Your task to perform on an android device: turn on priority inbox in the gmail app Image 0: 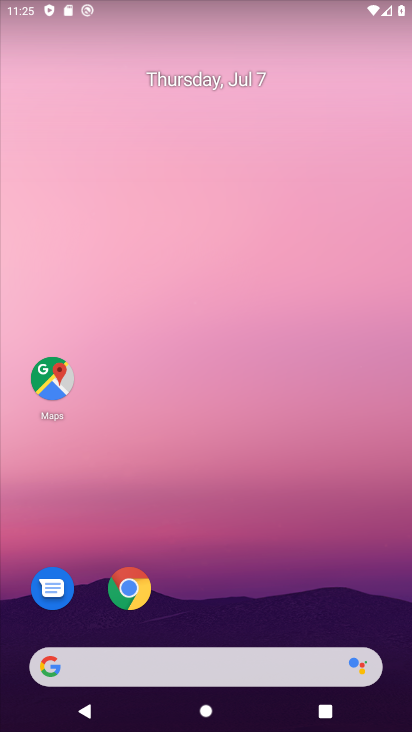
Step 0: drag from (311, 568) to (284, 15)
Your task to perform on an android device: turn on priority inbox in the gmail app Image 1: 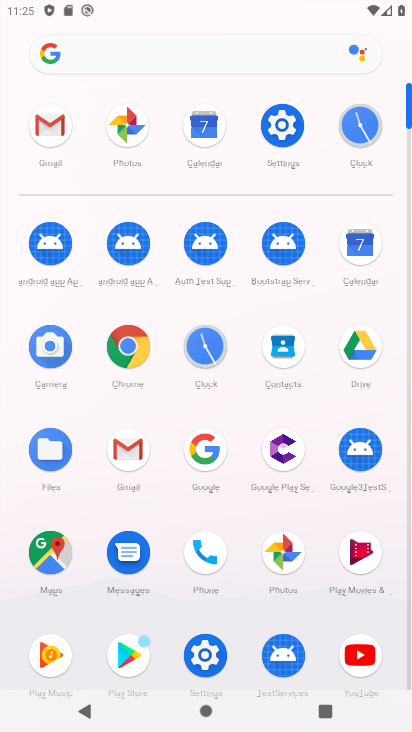
Step 1: click (44, 119)
Your task to perform on an android device: turn on priority inbox in the gmail app Image 2: 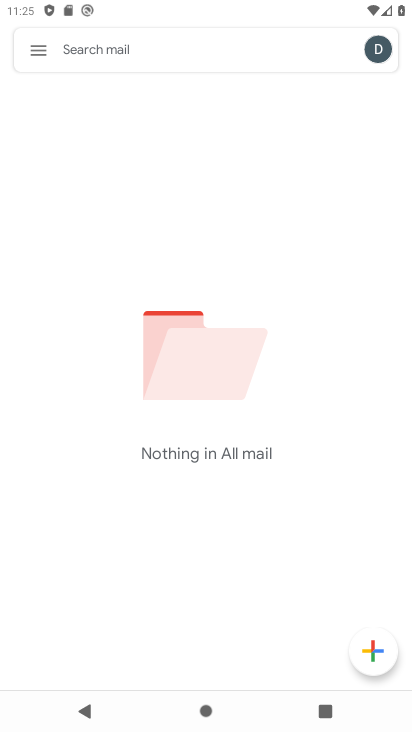
Step 2: click (31, 39)
Your task to perform on an android device: turn on priority inbox in the gmail app Image 3: 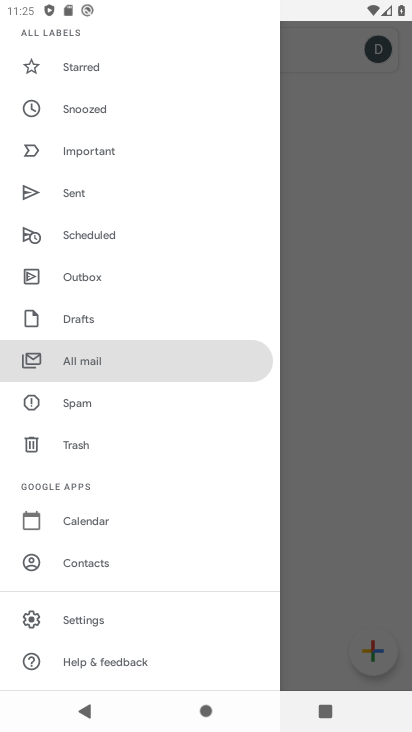
Step 3: click (78, 619)
Your task to perform on an android device: turn on priority inbox in the gmail app Image 4: 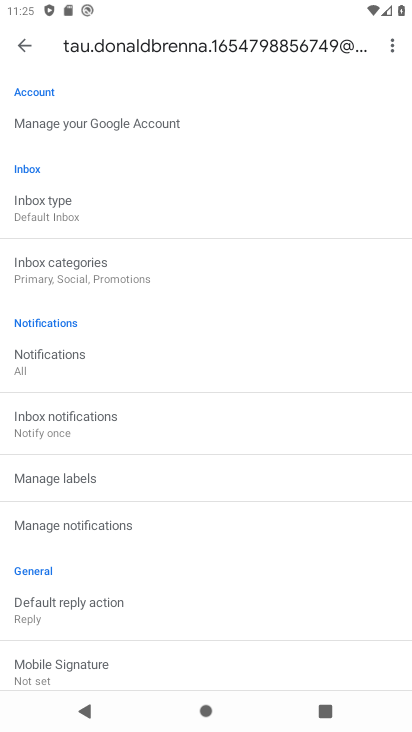
Step 4: click (84, 214)
Your task to perform on an android device: turn on priority inbox in the gmail app Image 5: 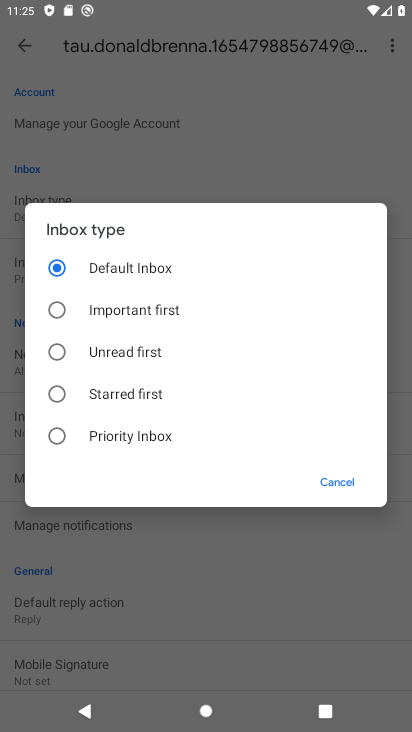
Step 5: click (87, 442)
Your task to perform on an android device: turn on priority inbox in the gmail app Image 6: 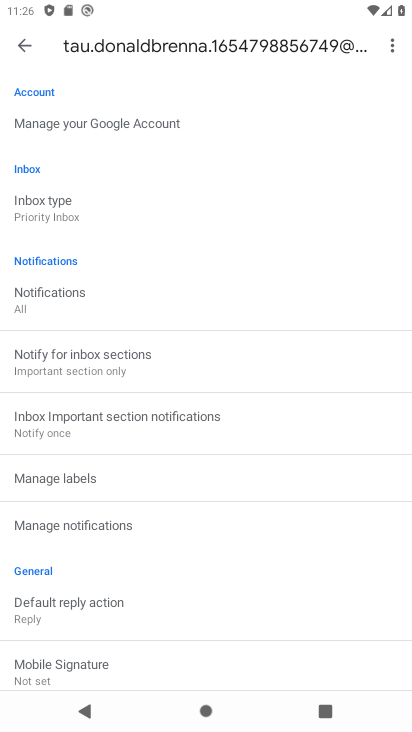
Step 6: task complete